Your task to perform on an android device: toggle show notifications on the lock screen Image 0: 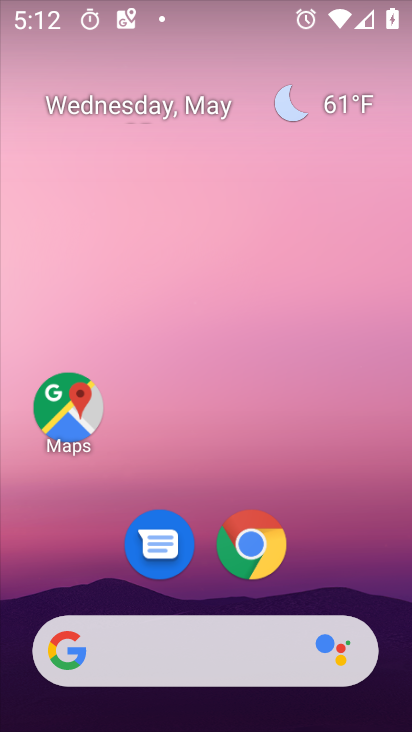
Step 0: drag from (211, 625) to (208, 136)
Your task to perform on an android device: toggle show notifications on the lock screen Image 1: 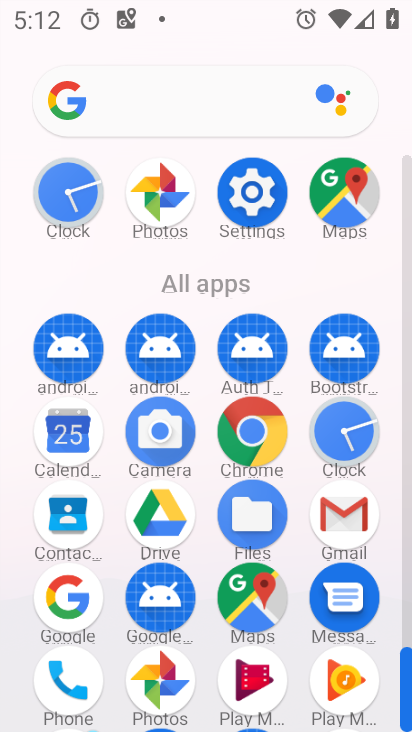
Step 1: click (259, 203)
Your task to perform on an android device: toggle show notifications on the lock screen Image 2: 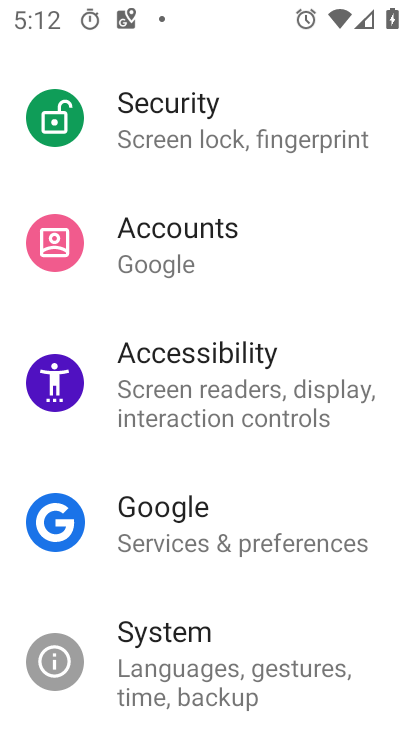
Step 2: drag from (189, 680) to (196, 271)
Your task to perform on an android device: toggle show notifications on the lock screen Image 3: 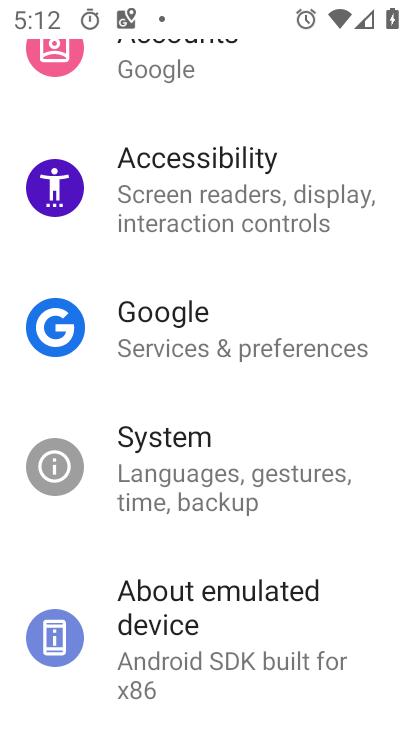
Step 3: drag from (227, 132) to (223, 626)
Your task to perform on an android device: toggle show notifications on the lock screen Image 4: 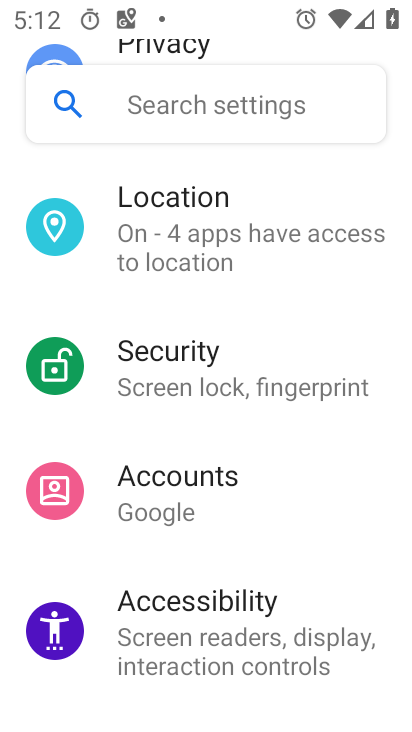
Step 4: drag from (237, 315) to (277, 614)
Your task to perform on an android device: toggle show notifications on the lock screen Image 5: 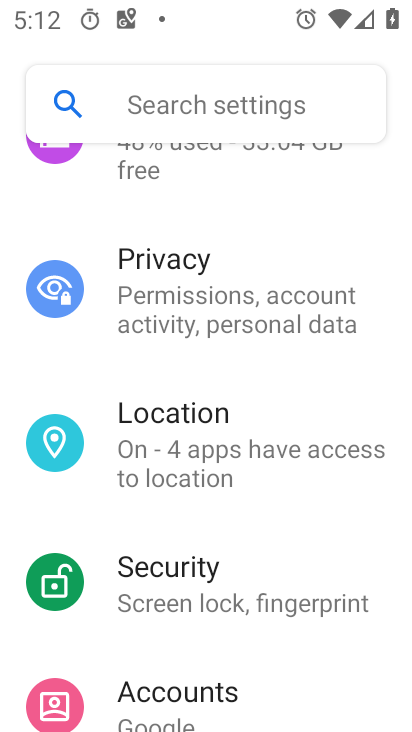
Step 5: click (204, 285)
Your task to perform on an android device: toggle show notifications on the lock screen Image 6: 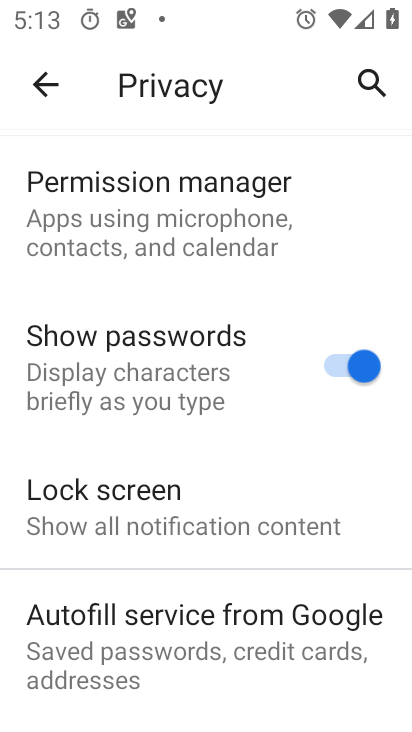
Step 6: click (214, 503)
Your task to perform on an android device: toggle show notifications on the lock screen Image 7: 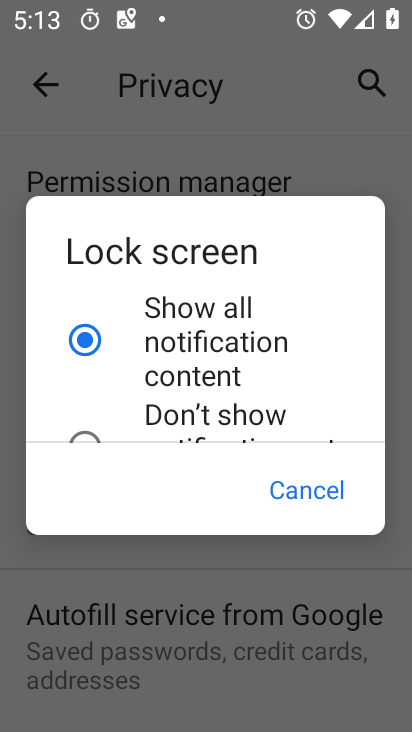
Step 7: click (226, 416)
Your task to perform on an android device: toggle show notifications on the lock screen Image 8: 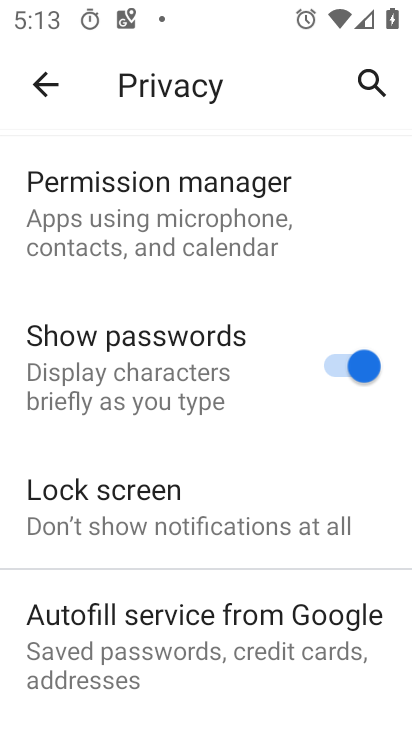
Step 8: task complete